Your task to perform on an android device: turn on javascript in the chrome app Image 0: 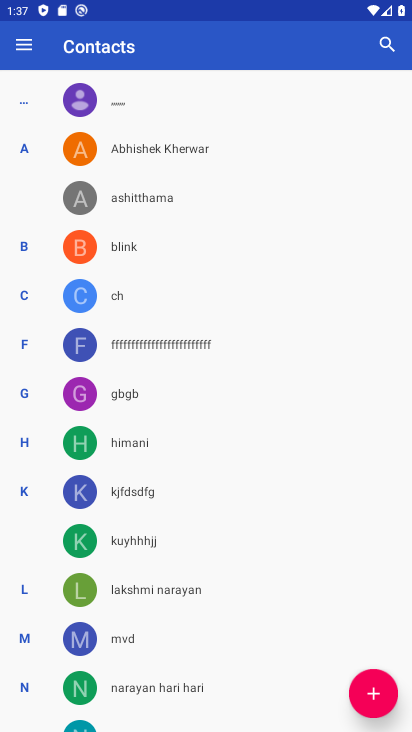
Step 0: press home button
Your task to perform on an android device: turn on javascript in the chrome app Image 1: 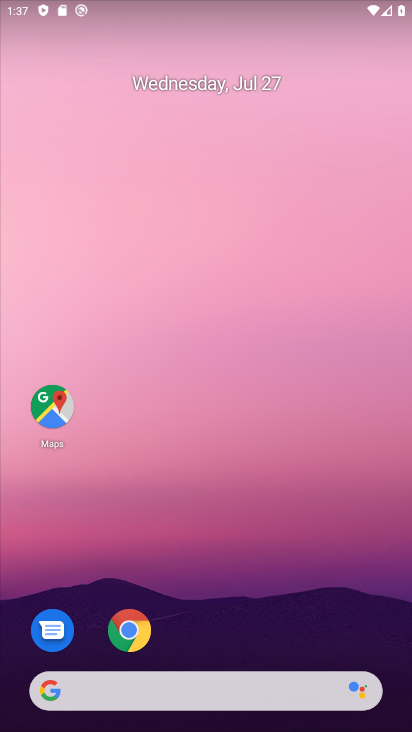
Step 1: click (131, 632)
Your task to perform on an android device: turn on javascript in the chrome app Image 2: 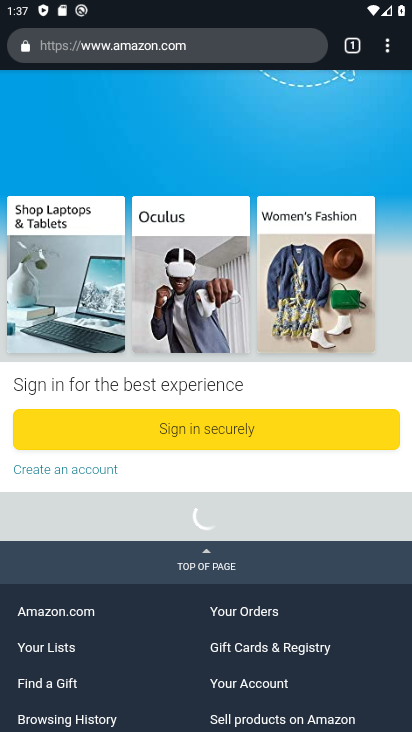
Step 2: click (386, 55)
Your task to perform on an android device: turn on javascript in the chrome app Image 3: 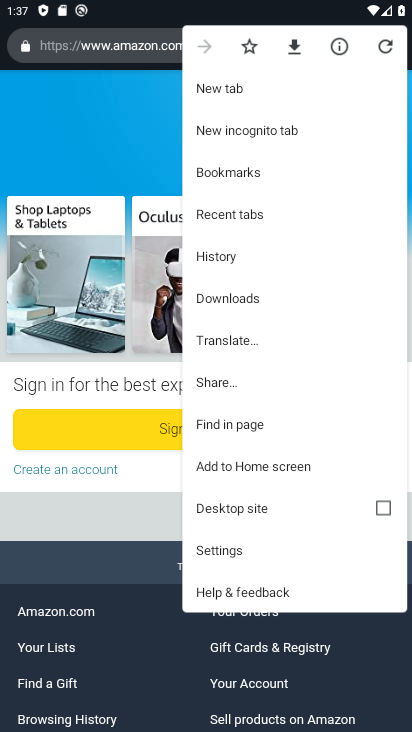
Step 3: click (224, 553)
Your task to perform on an android device: turn on javascript in the chrome app Image 4: 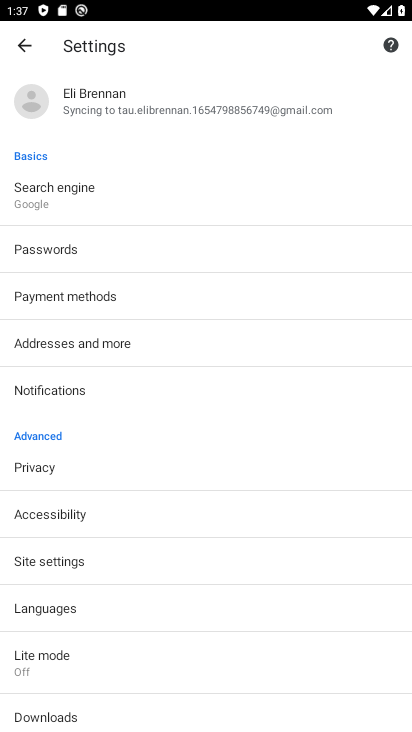
Step 4: click (56, 564)
Your task to perform on an android device: turn on javascript in the chrome app Image 5: 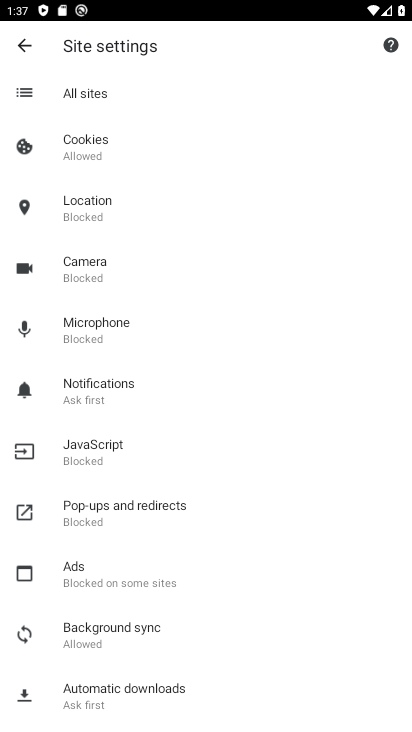
Step 5: click (101, 443)
Your task to perform on an android device: turn on javascript in the chrome app Image 6: 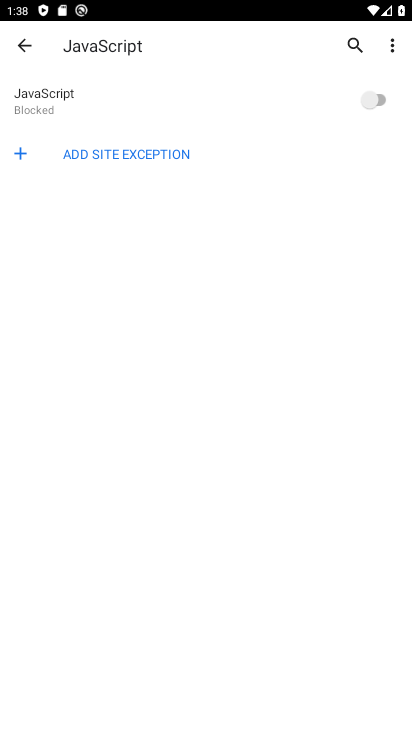
Step 6: click (385, 94)
Your task to perform on an android device: turn on javascript in the chrome app Image 7: 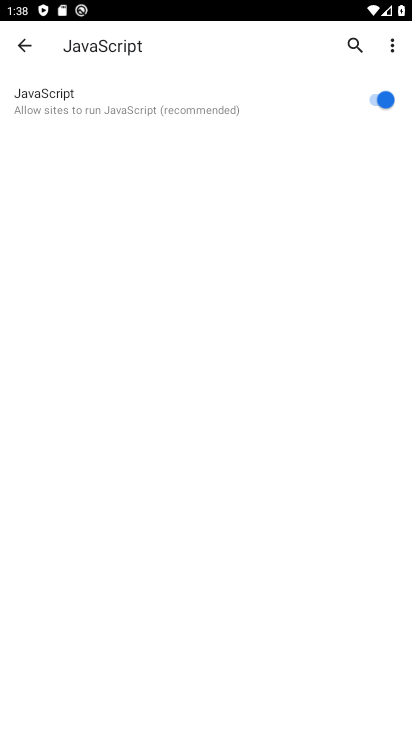
Step 7: task complete